Your task to perform on an android device: delete the emails in spam in the gmail app Image 0: 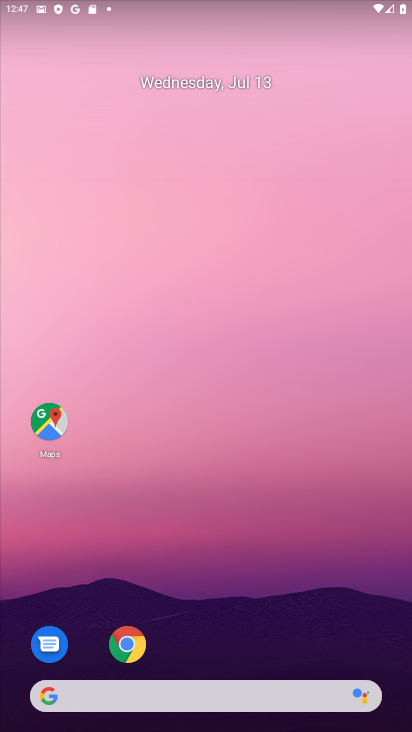
Step 0: drag from (294, 653) to (292, 105)
Your task to perform on an android device: delete the emails in spam in the gmail app Image 1: 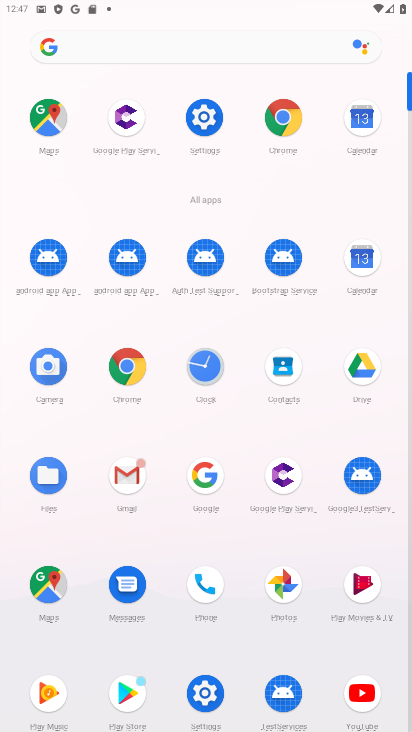
Step 1: click (134, 468)
Your task to perform on an android device: delete the emails in spam in the gmail app Image 2: 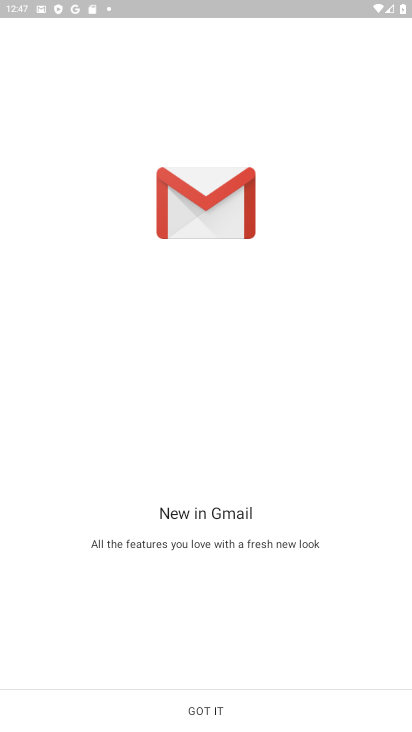
Step 2: click (196, 705)
Your task to perform on an android device: delete the emails in spam in the gmail app Image 3: 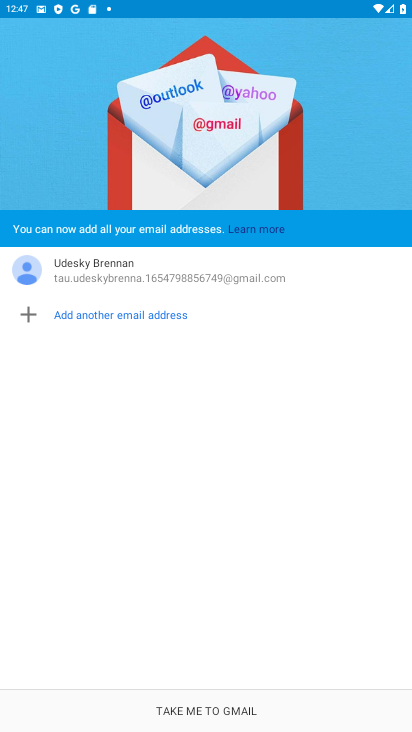
Step 3: click (202, 707)
Your task to perform on an android device: delete the emails in spam in the gmail app Image 4: 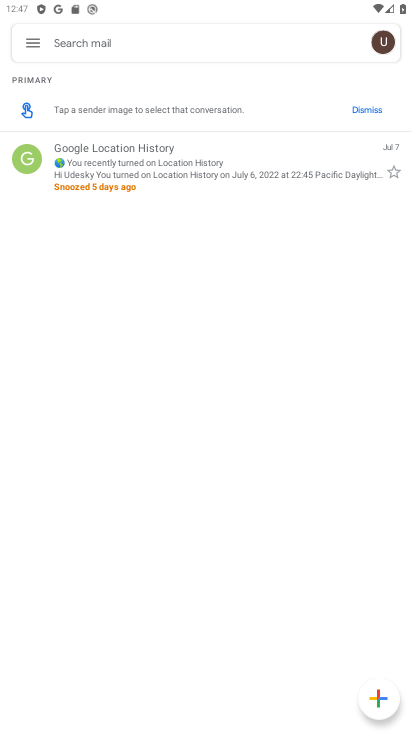
Step 4: click (26, 38)
Your task to perform on an android device: delete the emails in spam in the gmail app Image 5: 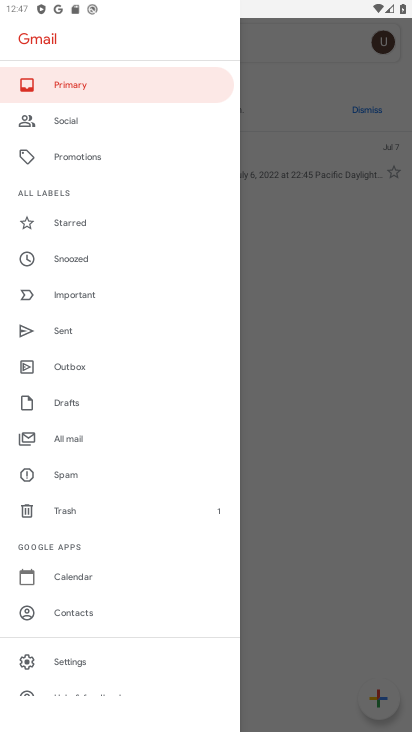
Step 5: click (66, 484)
Your task to perform on an android device: delete the emails in spam in the gmail app Image 6: 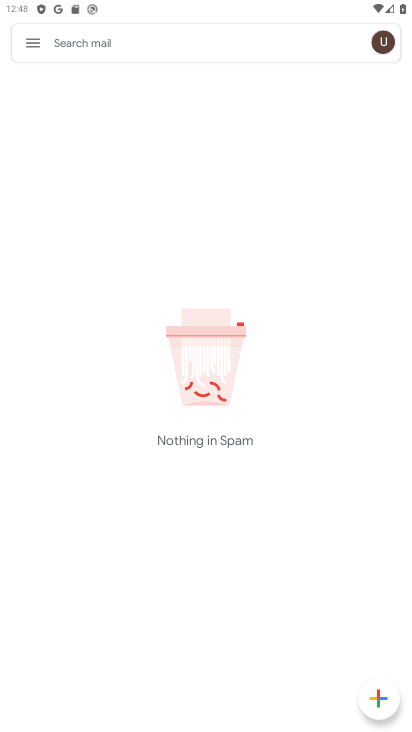
Step 6: task complete